Your task to perform on an android device: toggle notifications settings in the gmail app Image 0: 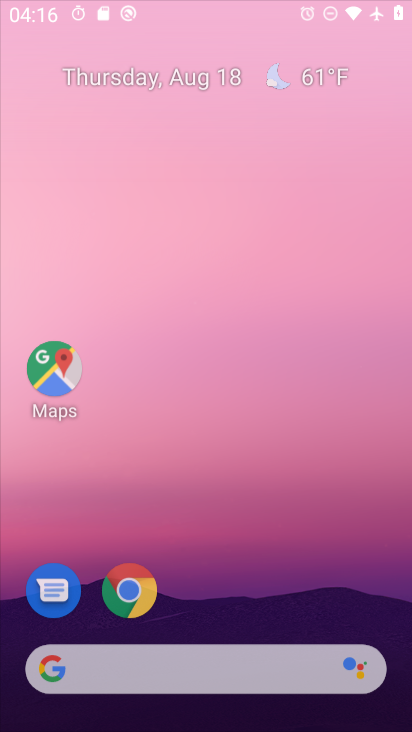
Step 0: press home button
Your task to perform on an android device: toggle notifications settings in the gmail app Image 1: 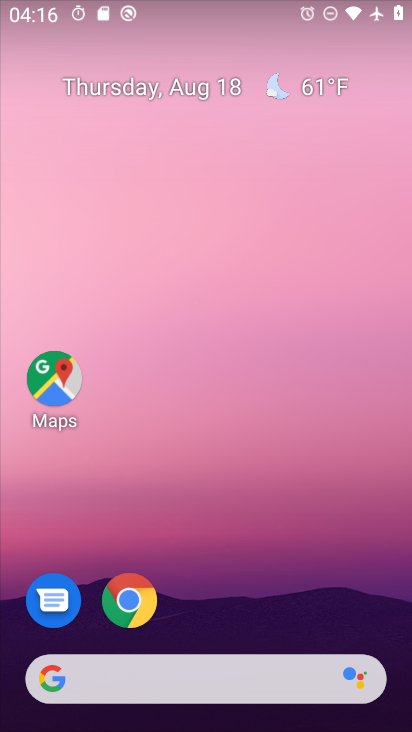
Step 1: drag from (265, 629) to (343, 88)
Your task to perform on an android device: toggle notifications settings in the gmail app Image 2: 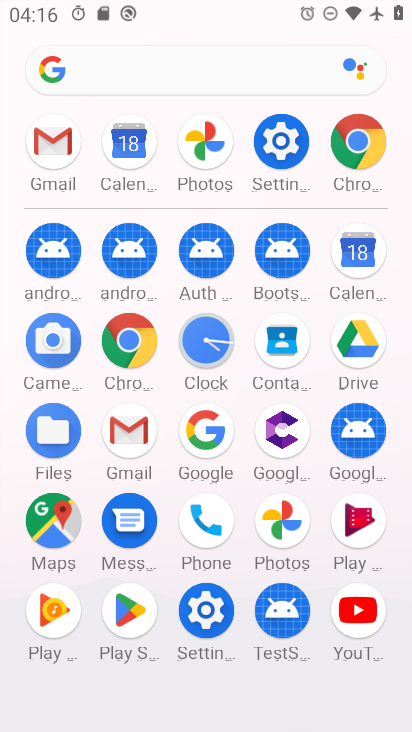
Step 2: click (52, 151)
Your task to perform on an android device: toggle notifications settings in the gmail app Image 3: 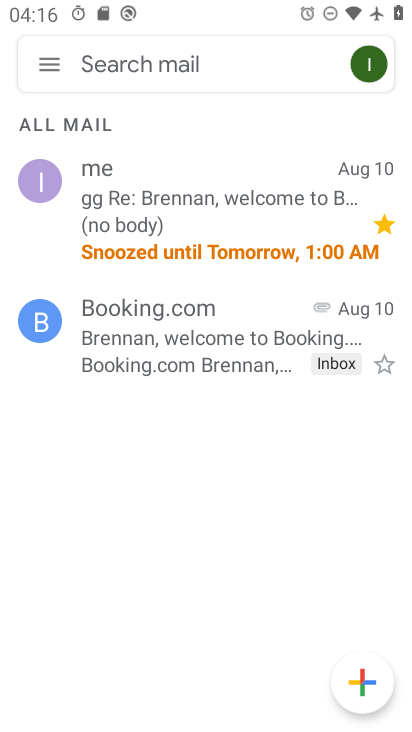
Step 3: click (50, 63)
Your task to perform on an android device: toggle notifications settings in the gmail app Image 4: 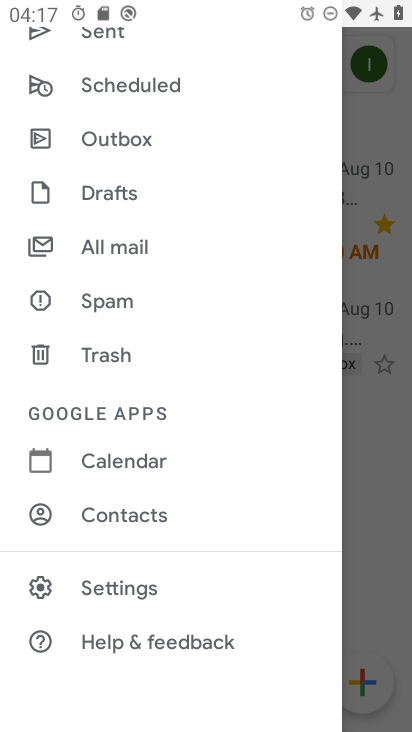
Step 4: click (109, 585)
Your task to perform on an android device: toggle notifications settings in the gmail app Image 5: 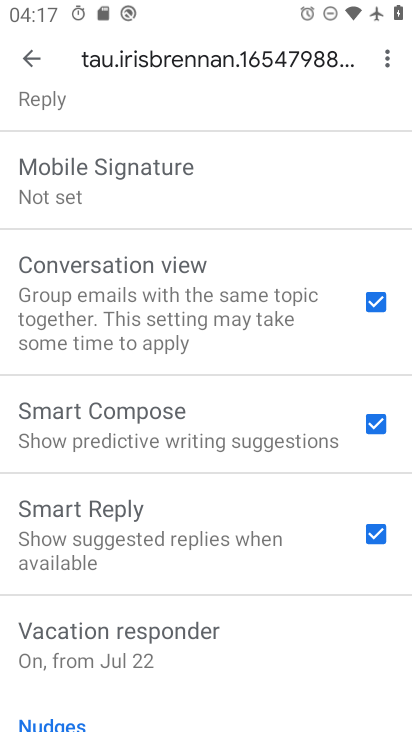
Step 5: drag from (244, 181) to (235, 728)
Your task to perform on an android device: toggle notifications settings in the gmail app Image 6: 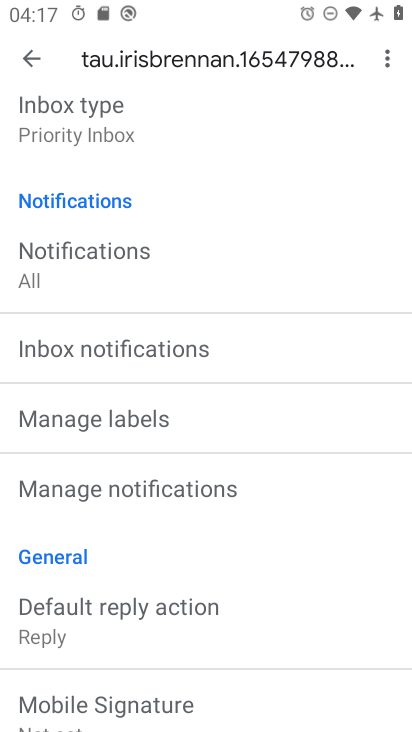
Step 6: click (126, 487)
Your task to perform on an android device: toggle notifications settings in the gmail app Image 7: 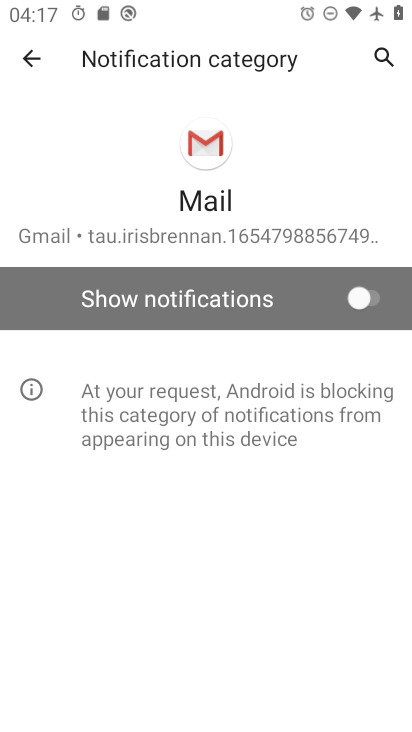
Step 7: click (361, 300)
Your task to perform on an android device: toggle notifications settings in the gmail app Image 8: 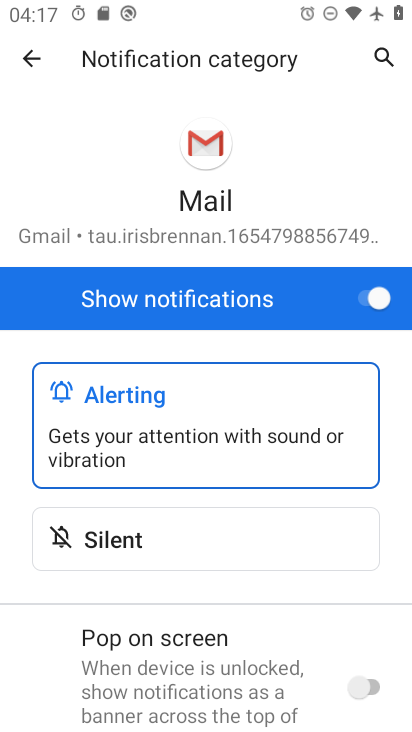
Step 8: task complete